Your task to perform on an android device: Go to accessibility settings Image 0: 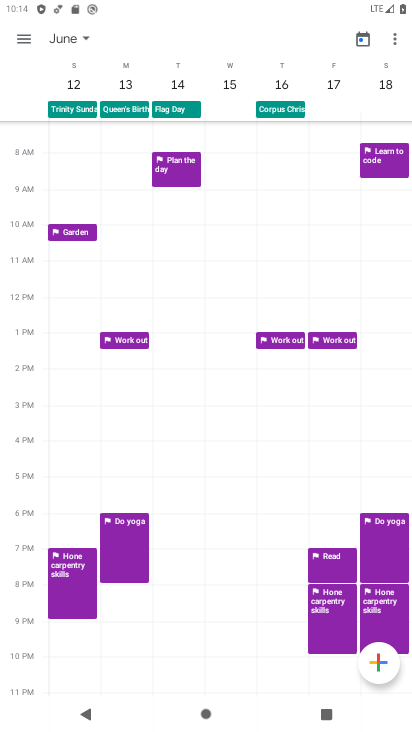
Step 0: press home button
Your task to perform on an android device: Go to accessibility settings Image 1: 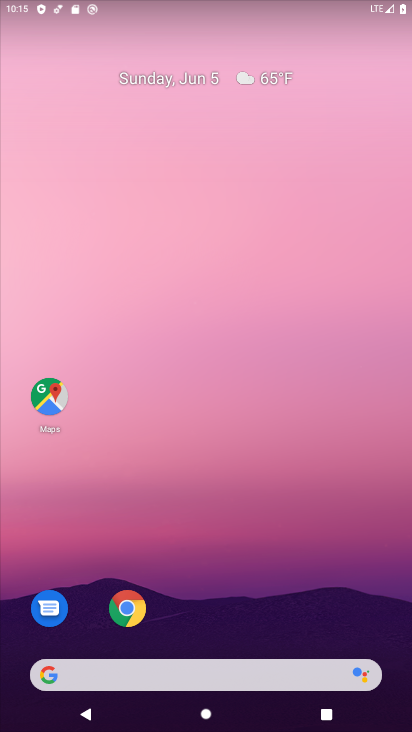
Step 1: drag from (190, 660) to (128, 87)
Your task to perform on an android device: Go to accessibility settings Image 2: 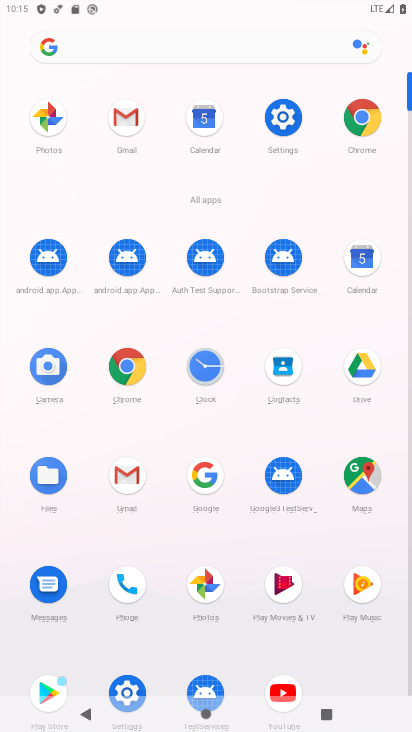
Step 2: click (276, 135)
Your task to perform on an android device: Go to accessibility settings Image 3: 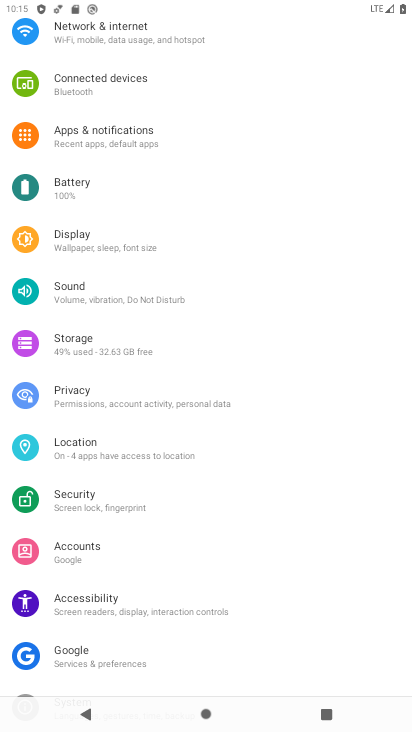
Step 3: click (119, 596)
Your task to perform on an android device: Go to accessibility settings Image 4: 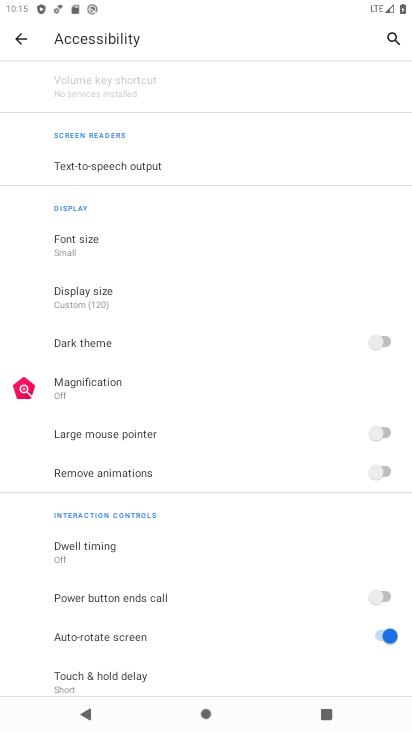
Step 4: task complete